Your task to perform on an android device: Open Maps and search for coffee Image 0: 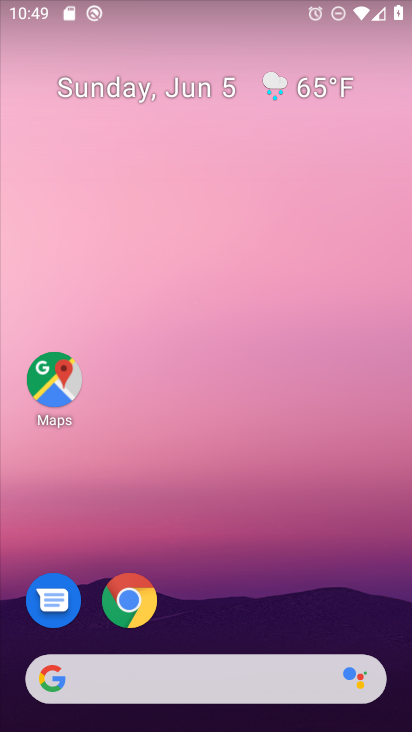
Step 0: drag from (370, 632) to (219, 68)
Your task to perform on an android device: Open Maps and search for coffee Image 1: 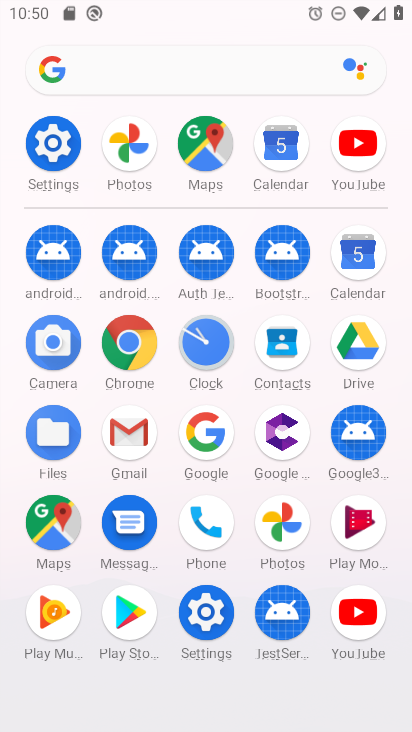
Step 1: click (49, 503)
Your task to perform on an android device: Open Maps and search for coffee Image 2: 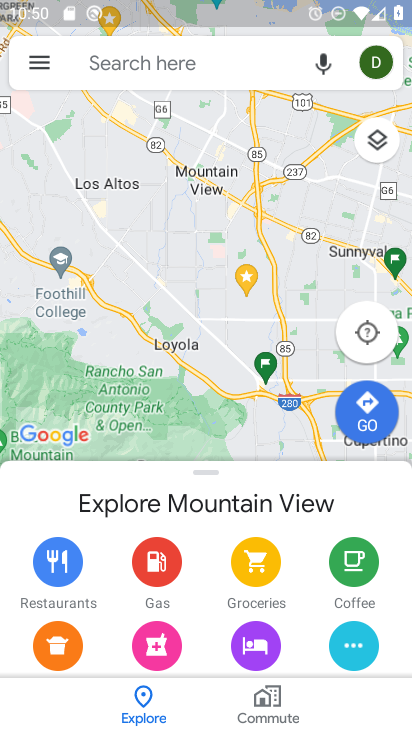
Step 2: click (134, 59)
Your task to perform on an android device: Open Maps and search for coffee Image 3: 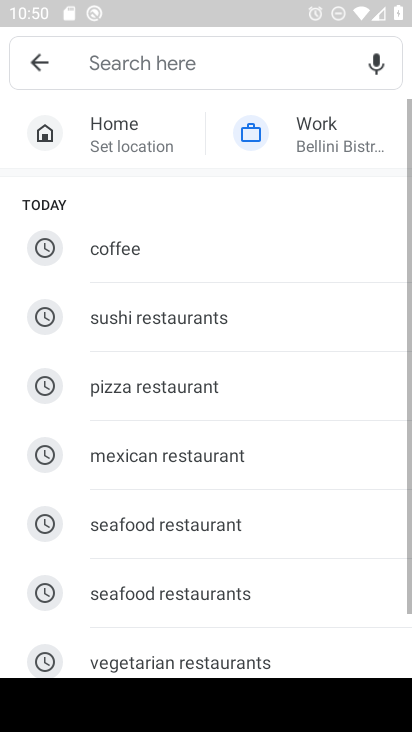
Step 3: click (110, 272)
Your task to perform on an android device: Open Maps and search for coffee Image 4: 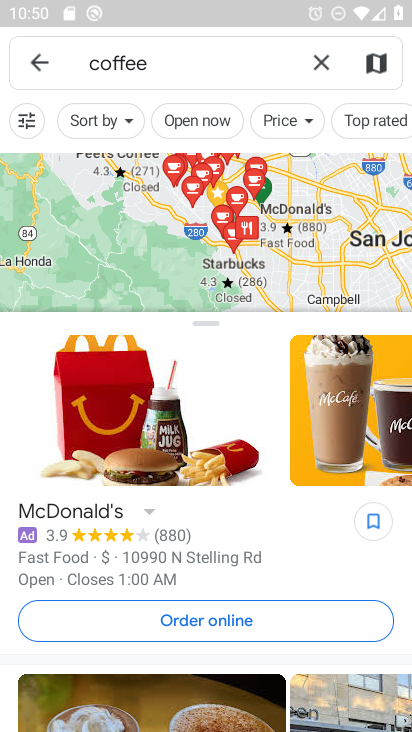
Step 4: task complete